Your task to perform on an android device: turn on wifi Image 0: 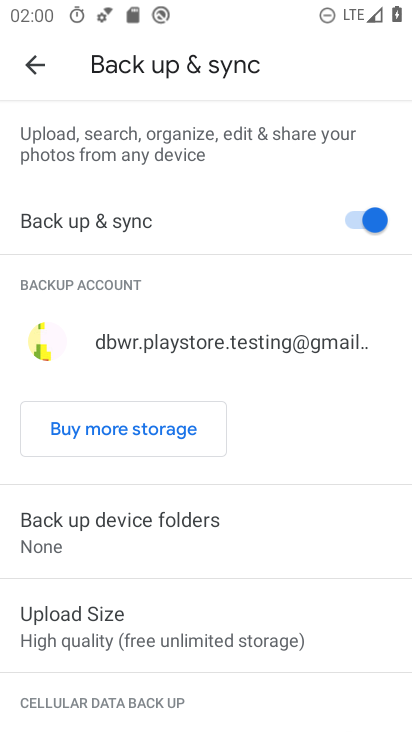
Step 0: press home button
Your task to perform on an android device: turn on wifi Image 1: 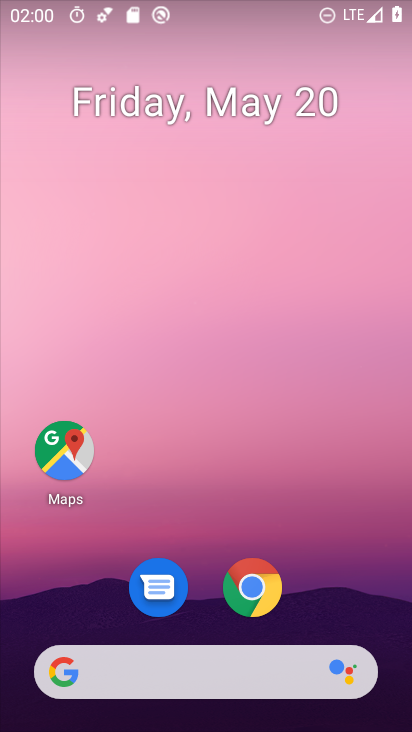
Step 1: drag from (369, 607) to (363, 142)
Your task to perform on an android device: turn on wifi Image 2: 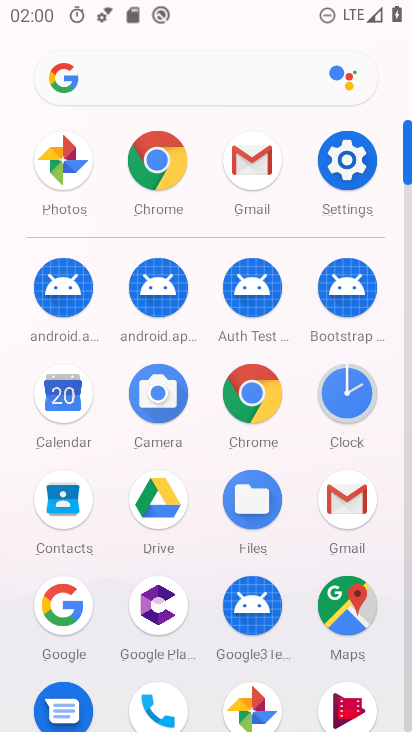
Step 2: click (354, 169)
Your task to perform on an android device: turn on wifi Image 3: 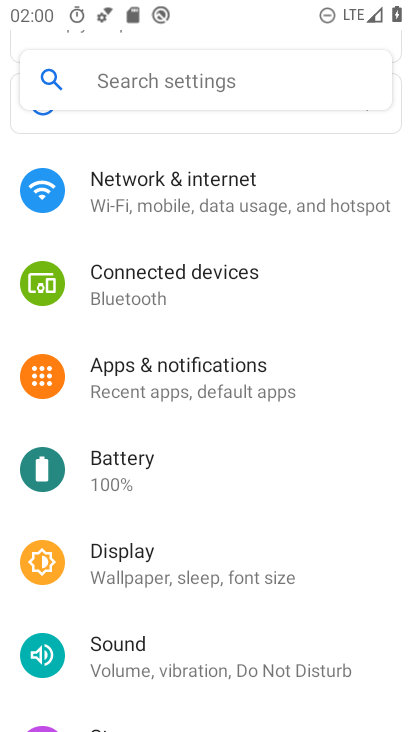
Step 3: drag from (358, 469) to (357, 343)
Your task to perform on an android device: turn on wifi Image 4: 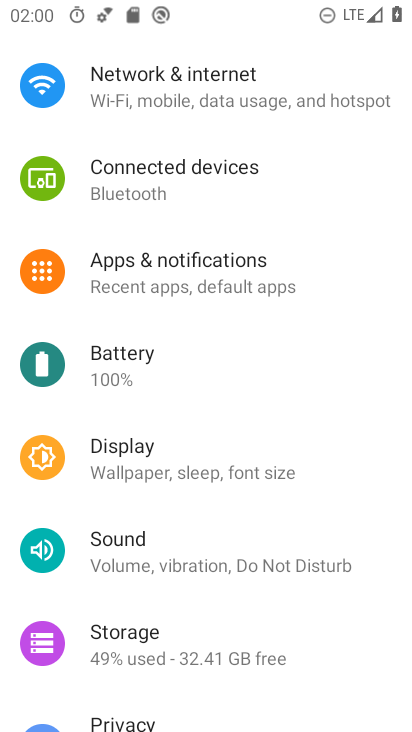
Step 4: drag from (360, 488) to (359, 342)
Your task to perform on an android device: turn on wifi Image 5: 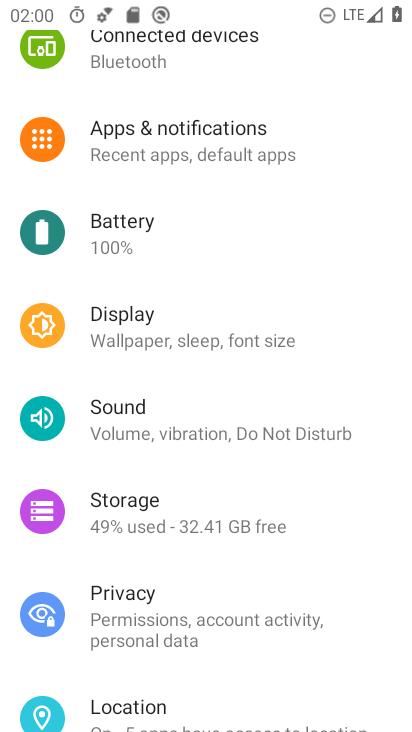
Step 5: drag from (362, 553) to (360, 395)
Your task to perform on an android device: turn on wifi Image 6: 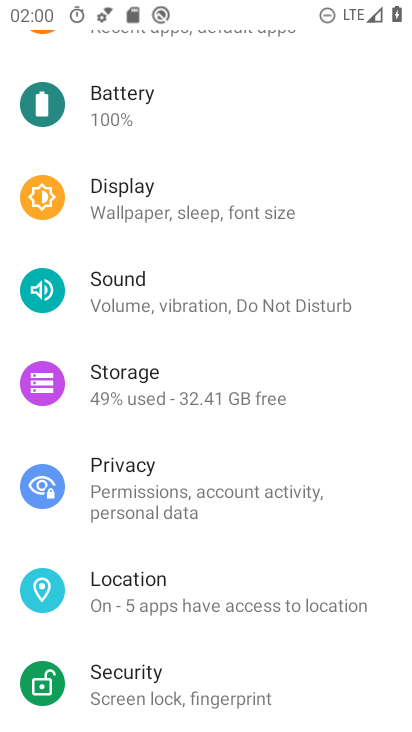
Step 6: drag from (369, 513) to (363, 435)
Your task to perform on an android device: turn on wifi Image 7: 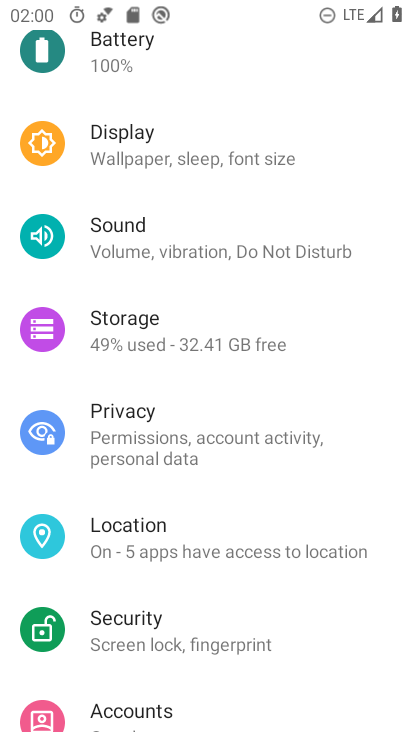
Step 7: drag from (346, 618) to (351, 473)
Your task to perform on an android device: turn on wifi Image 8: 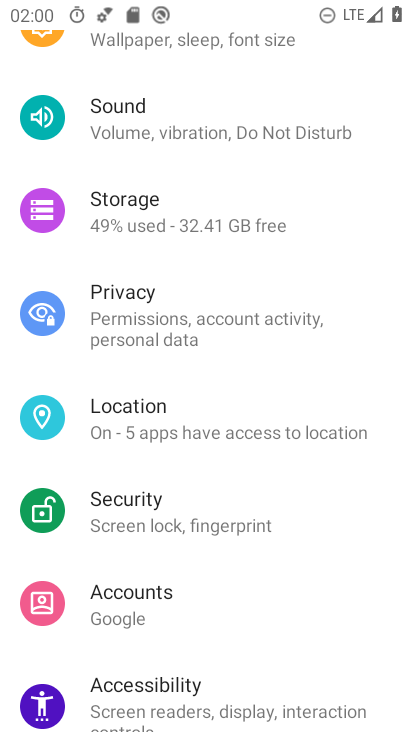
Step 8: drag from (371, 601) to (371, 466)
Your task to perform on an android device: turn on wifi Image 9: 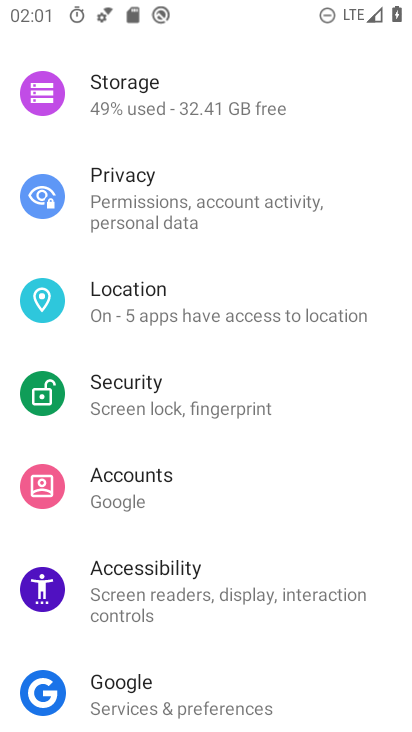
Step 9: drag from (358, 239) to (343, 425)
Your task to perform on an android device: turn on wifi Image 10: 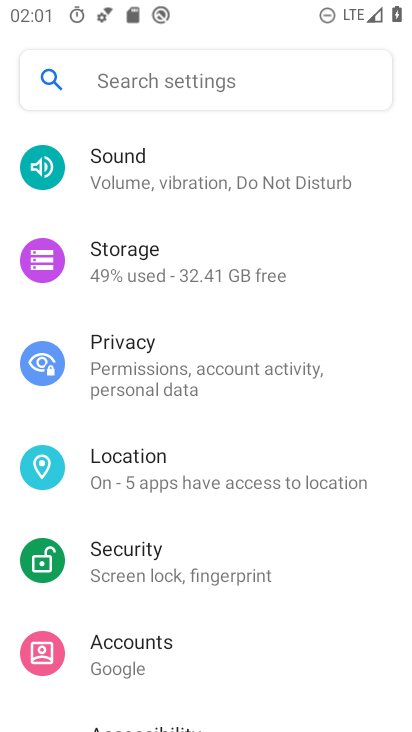
Step 10: drag from (353, 205) to (342, 381)
Your task to perform on an android device: turn on wifi Image 11: 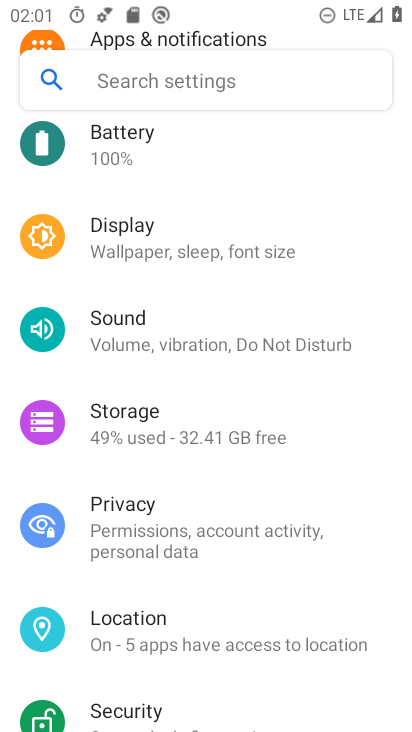
Step 11: drag from (358, 185) to (350, 361)
Your task to perform on an android device: turn on wifi Image 12: 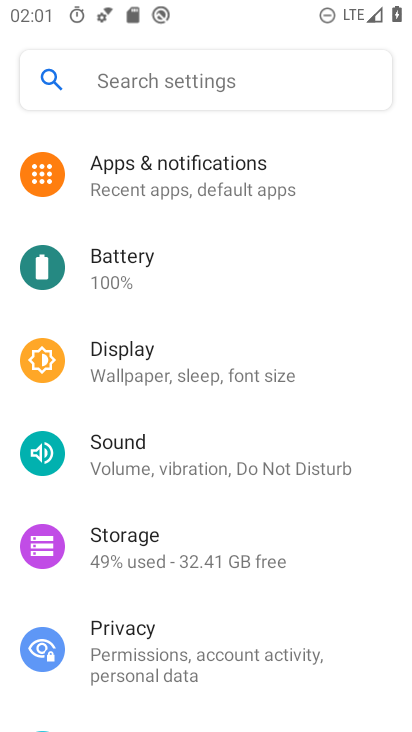
Step 12: drag from (347, 182) to (336, 322)
Your task to perform on an android device: turn on wifi Image 13: 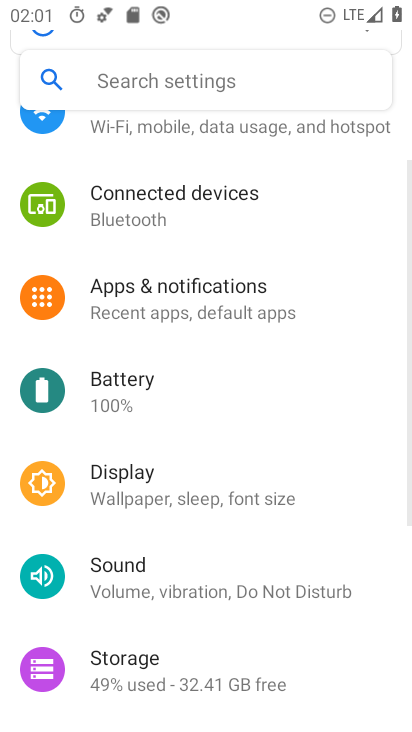
Step 13: drag from (352, 192) to (353, 362)
Your task to perform on an android device: turn on wifi Image 14: 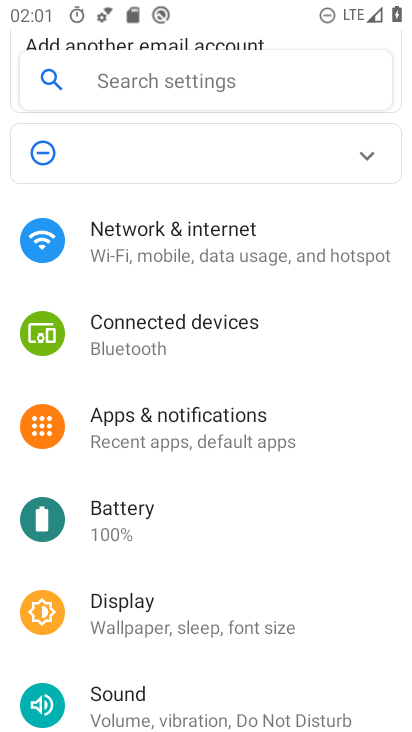
Step 14: click (305, 248)
Your task to perform on an android device: turn on wifi Image 15: 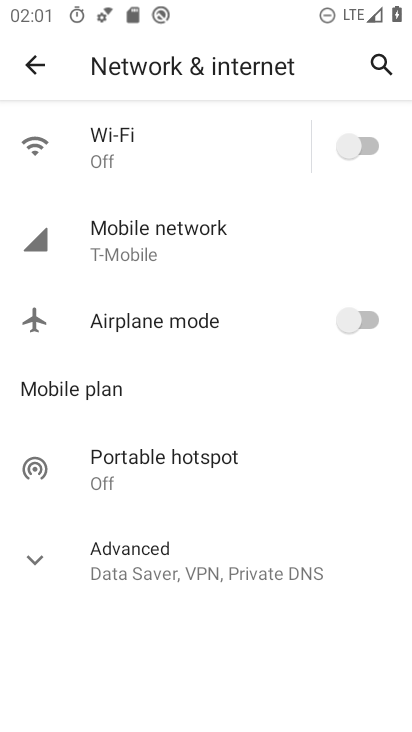
Step 15: click (353, 132)
Your task to perform on an android device: turn on wifi Image 16: 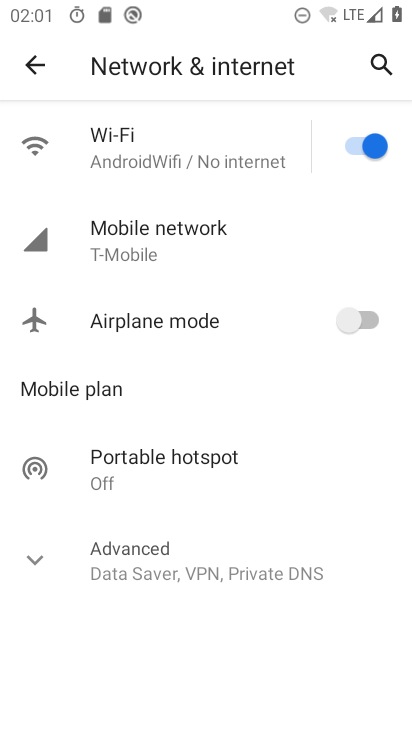
Step 16: task complete